Your task to perform on an android device: Go to Wikipedia Image 0: 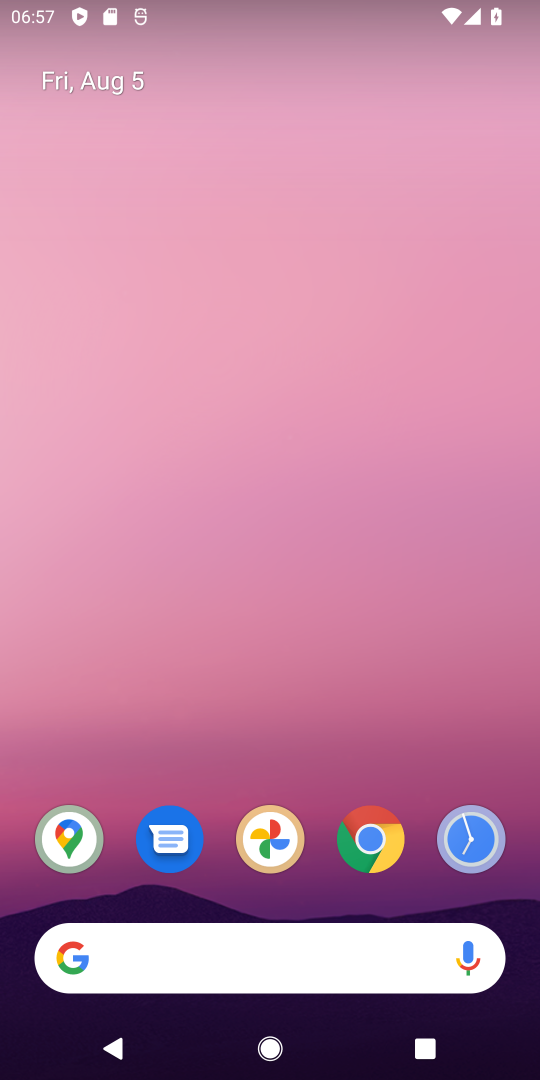
Step 0: click (380, 853)
Your task to perform on an android device: Go to Wikipedia Image 1: 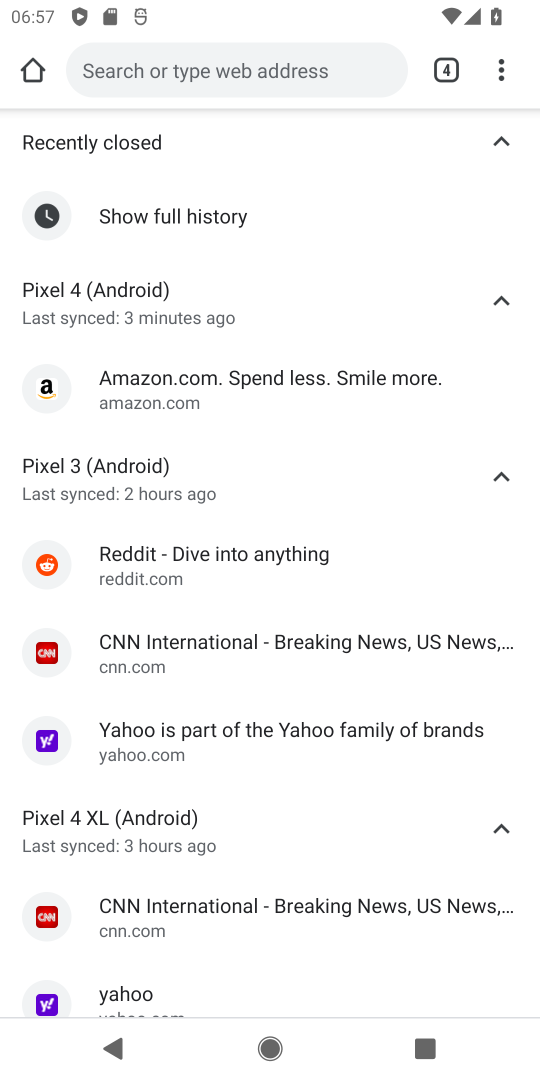
Step 1: click (505, 76)
Your task to perform on an android device: Go to Wikipedia Image 2: 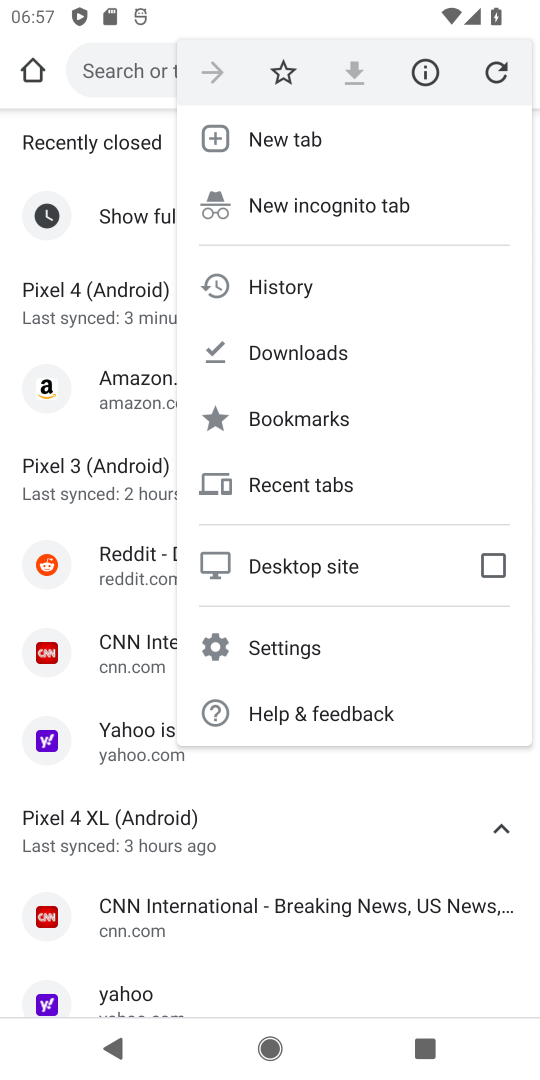
Step 2: click (267, 145)
Your task to perform on an android device: Go to Wikipedia Image 3: 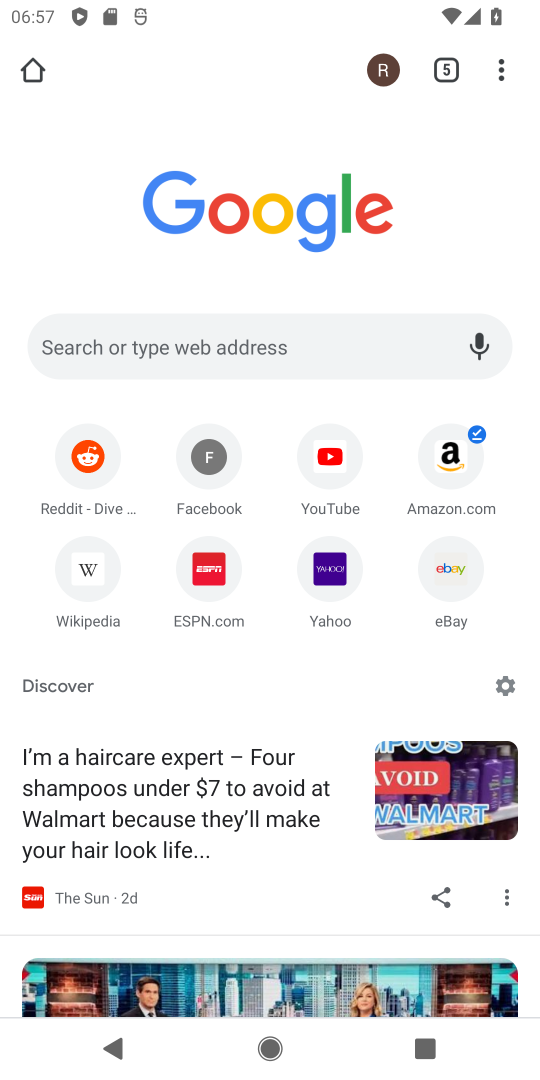
Step 3: click (88, 572)
Your task to perform on an android device: Go to Wikipedia Image 4: 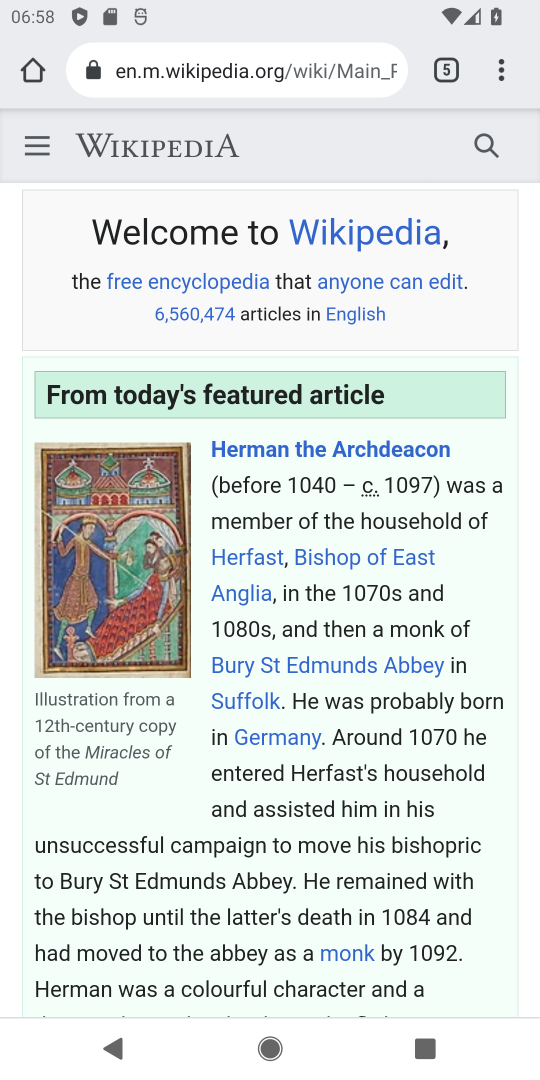
Step 4: task complete